Your task to perform on an android device: What is the news today? Image 0: 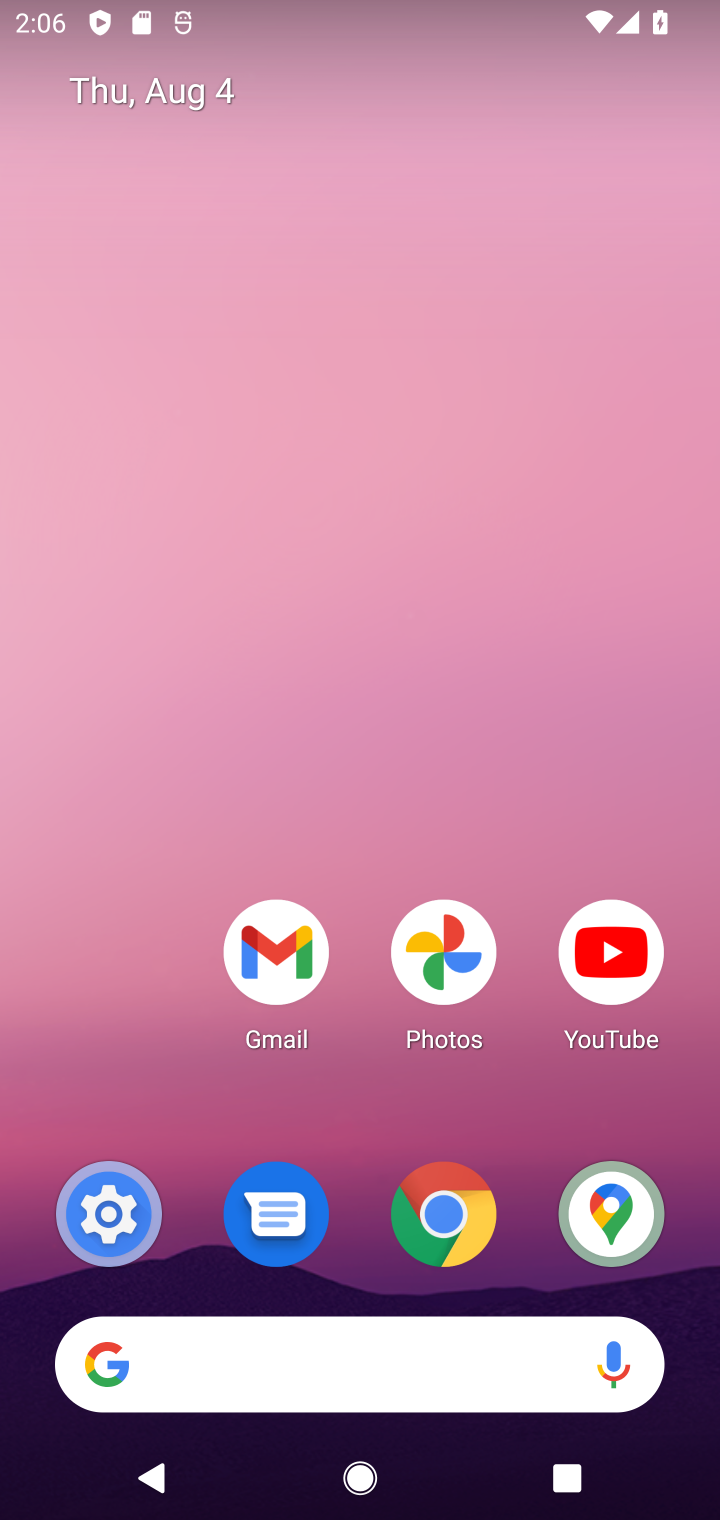
Step 0: drag from (475, 804) to (253, 9)
Your task to perform on an android device: What is the news today? Image 1: 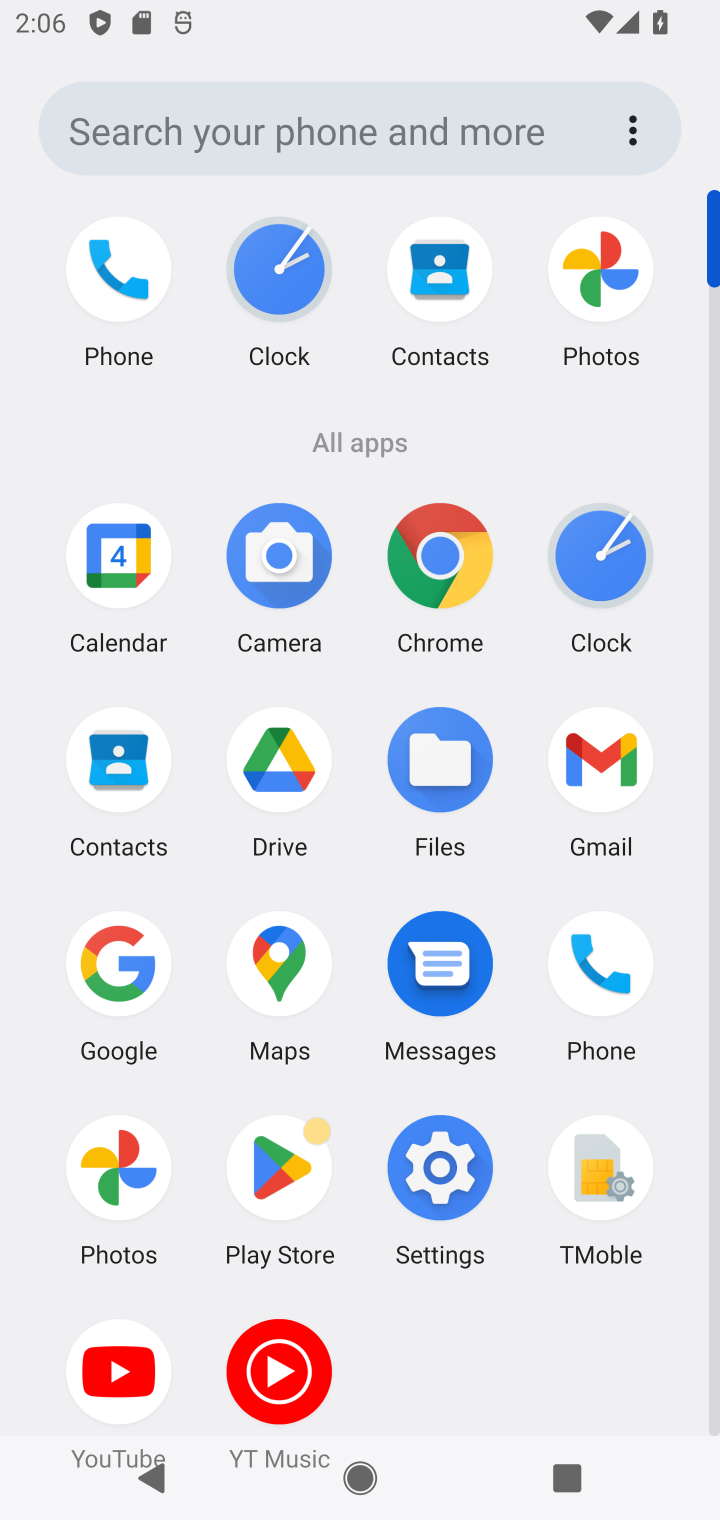
Step 1: click (91, 975)
Your task to perform on an android device: What is the news today? Image 2: 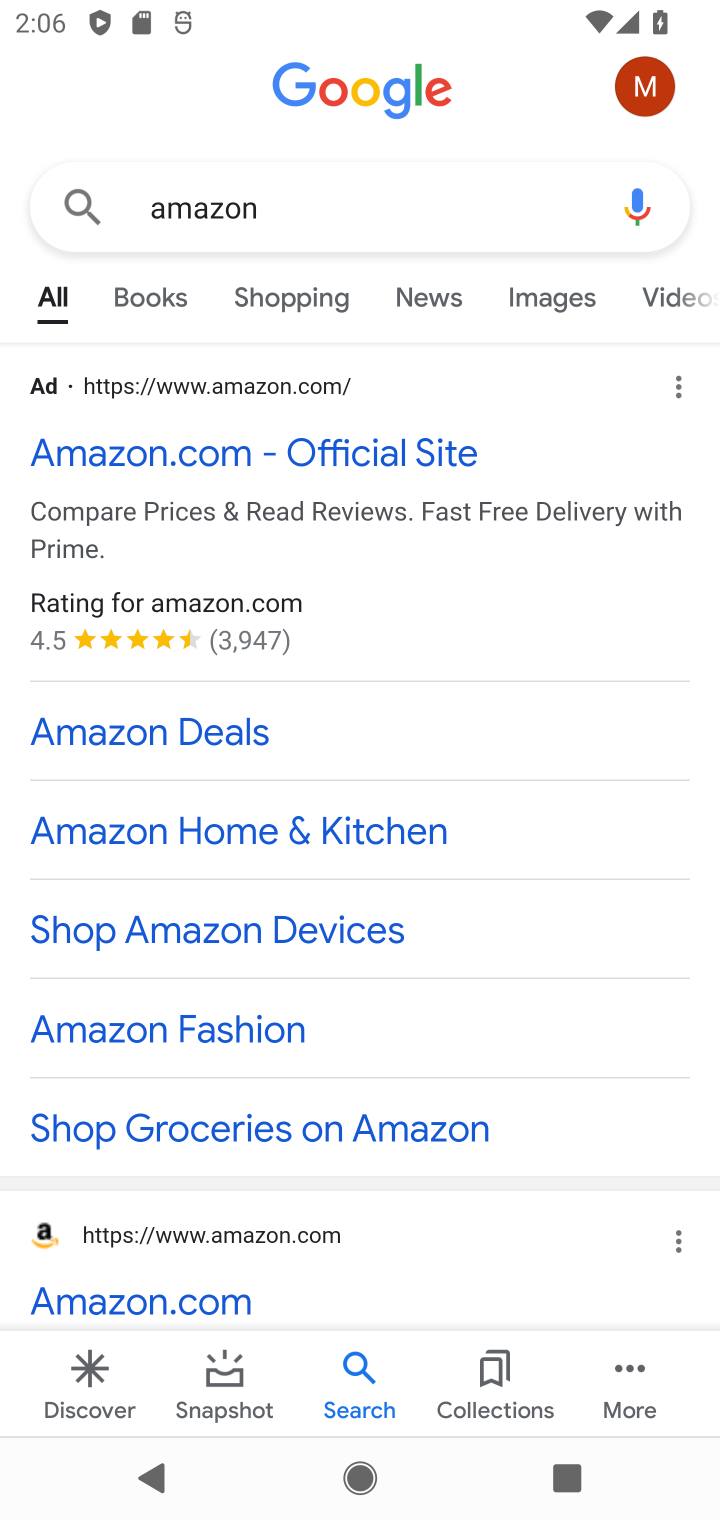
Step 2: press back button
Your task to perform on an android device: What is the news today? Image 3: 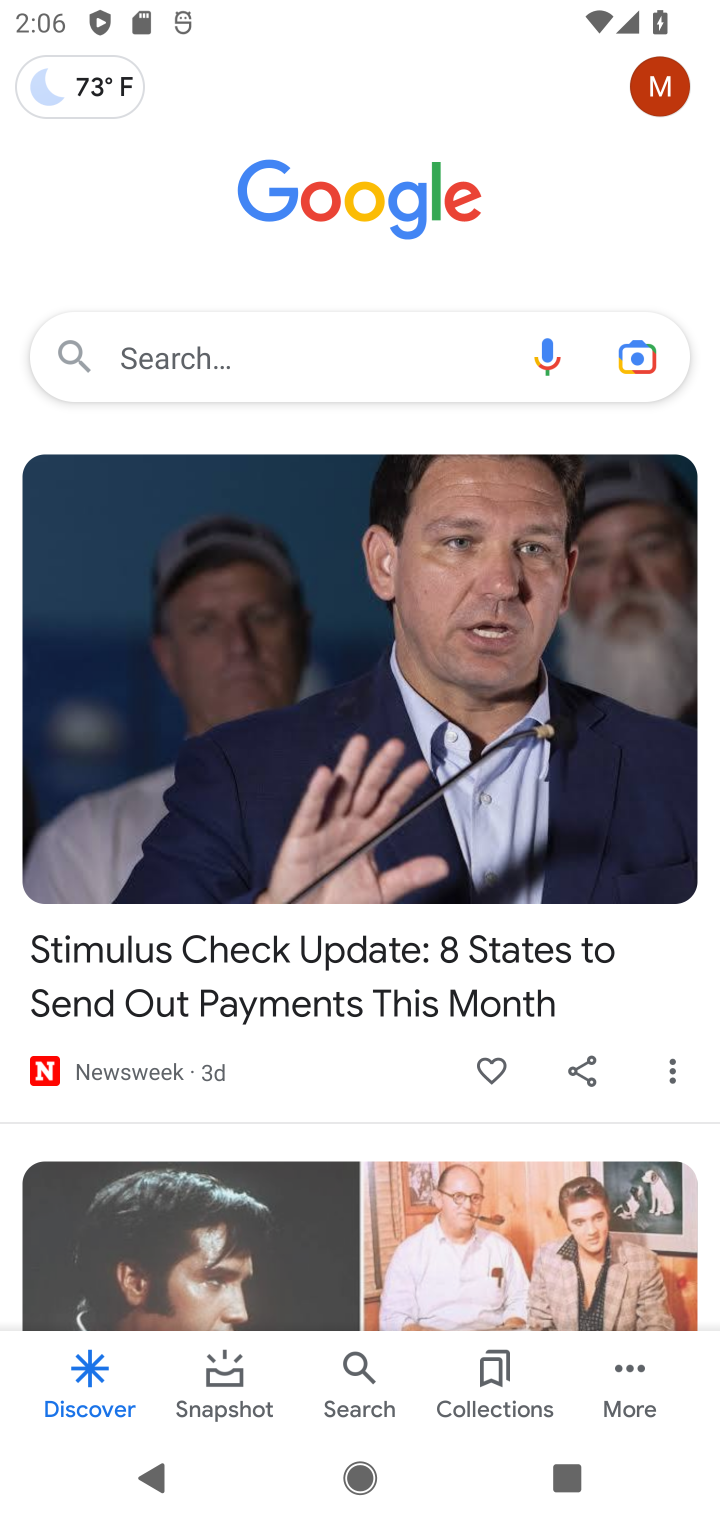
Step 3: click (101, 338)
Your task to perform on an android device: What is the news today? Image 4: 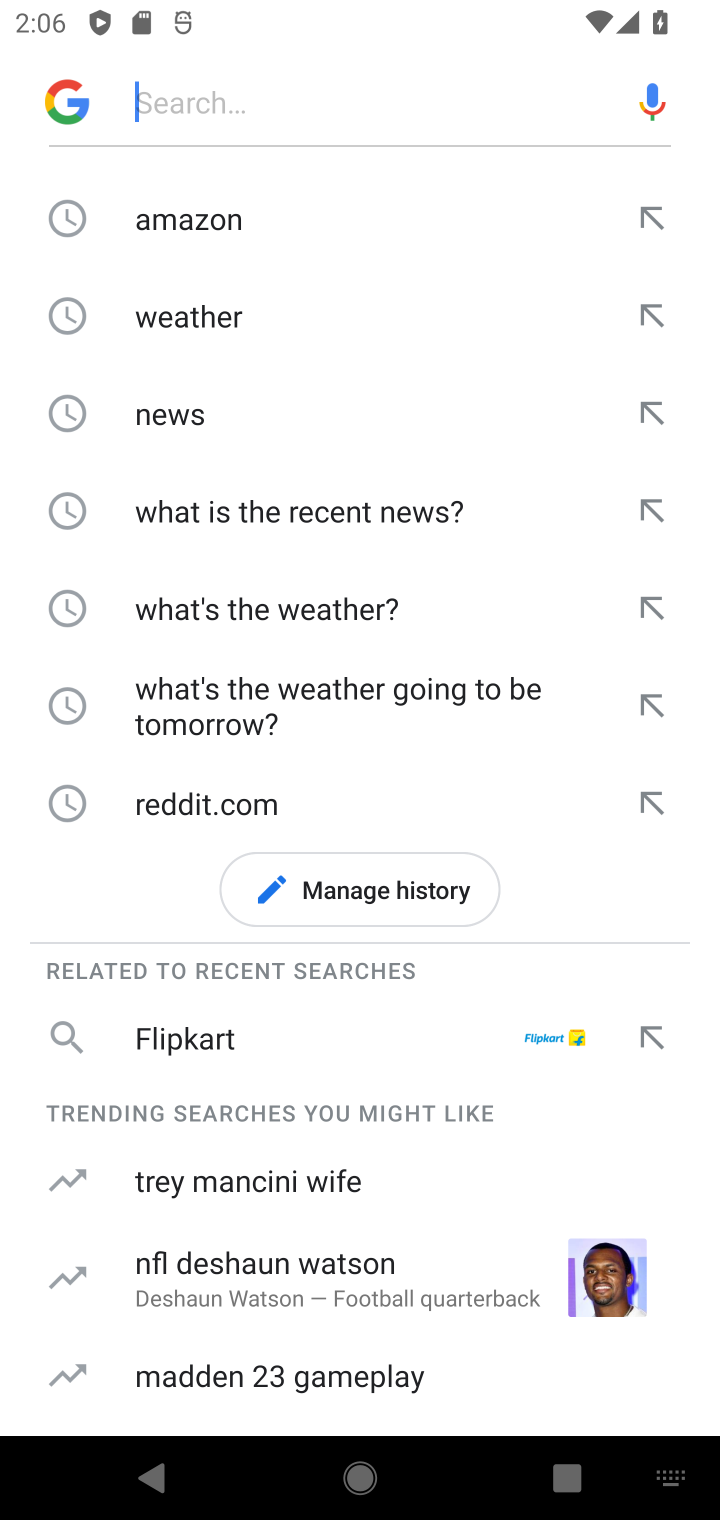
Step 4: type "What is the news today?"
Your task to perform on an android device: What is the news today? Image 5: 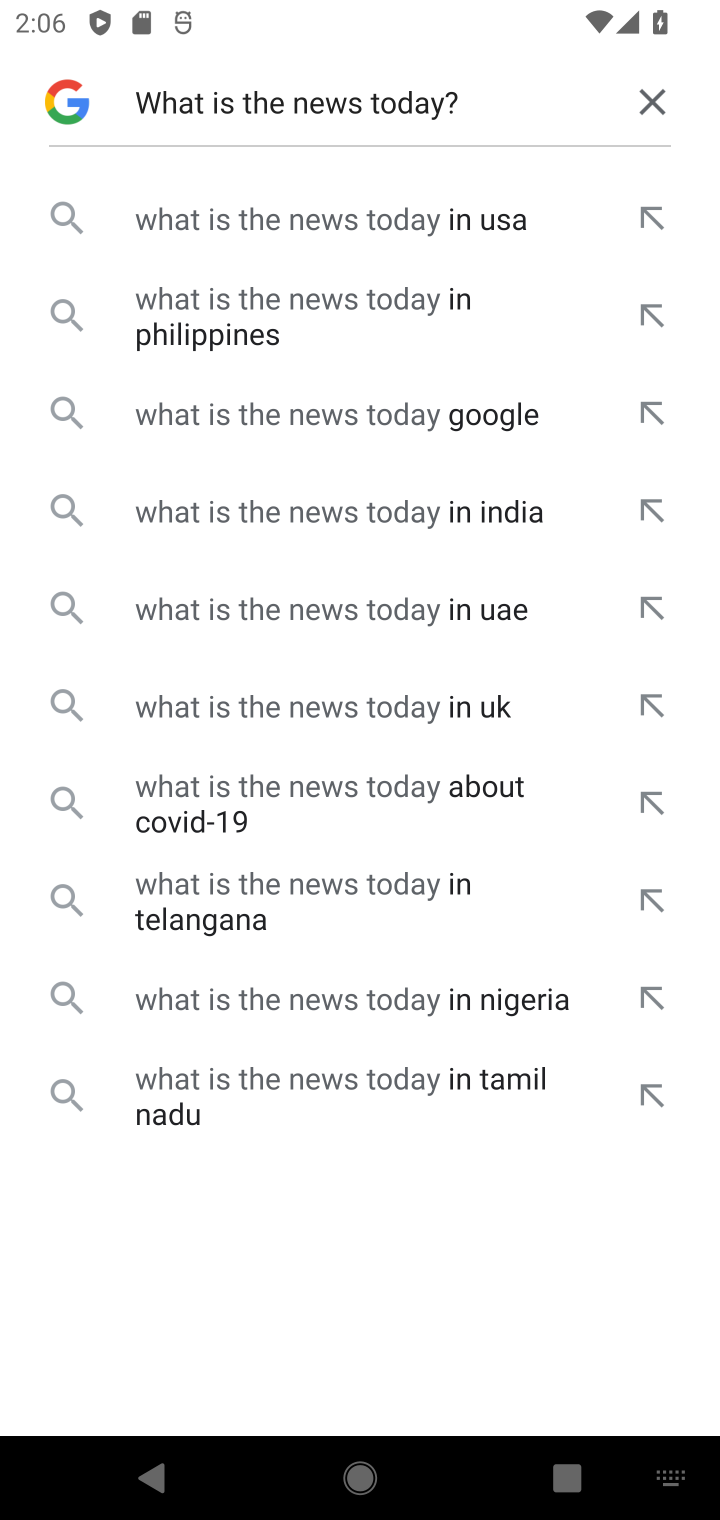
Step 5: click (410, 438)
Your task to perform on an android device: What is the news today? Image 6: 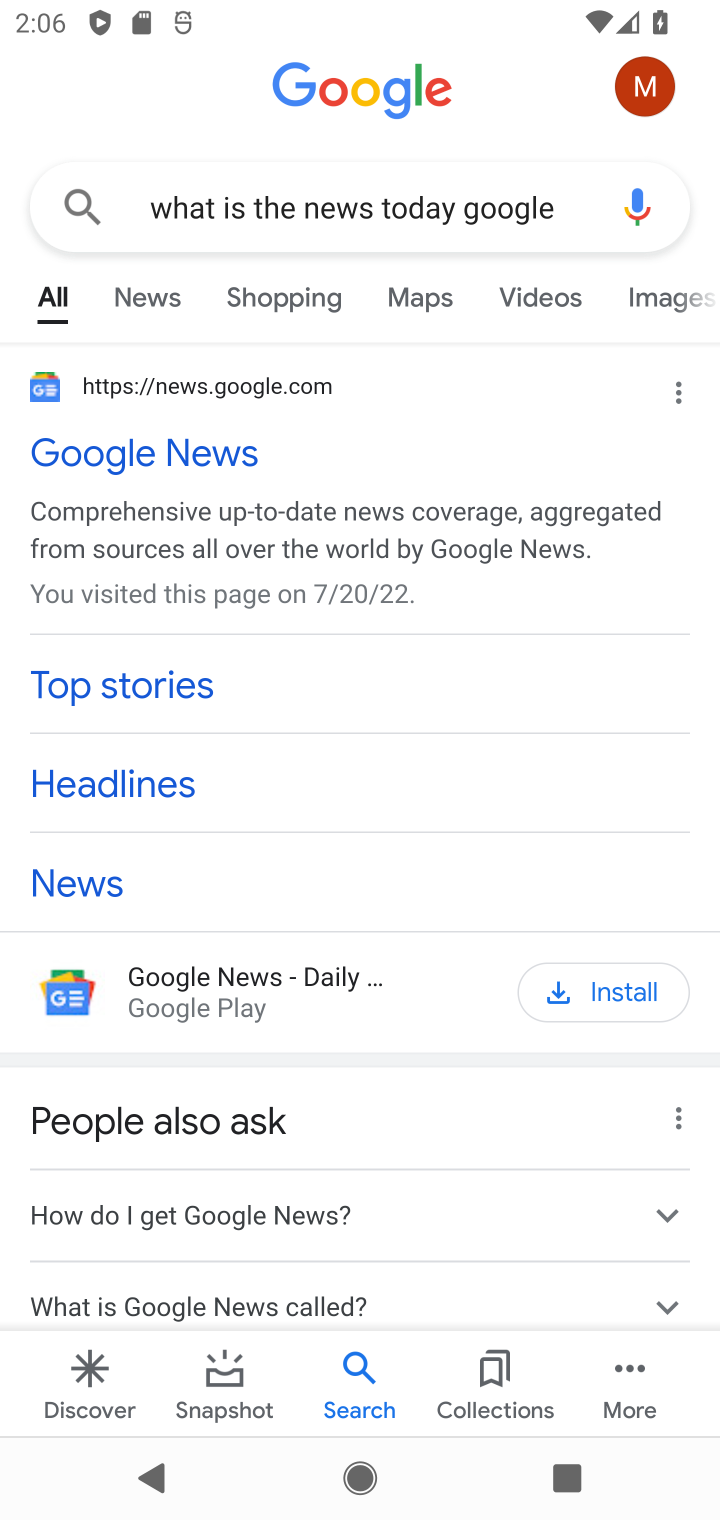
Step 6: task complete